Your task to perform on an android device: Open Google Maps Image 0: 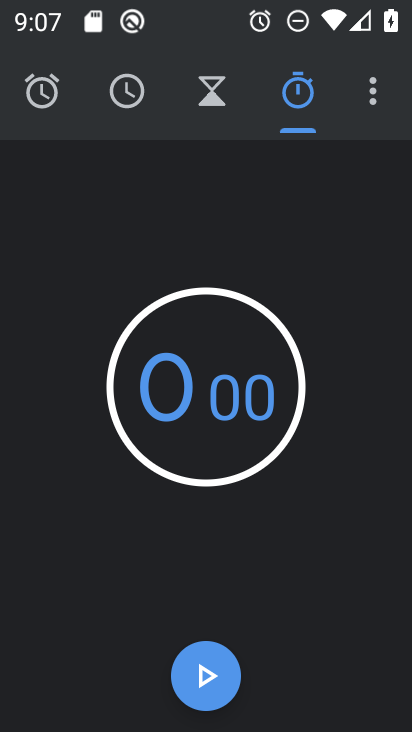
Step 0: press home button
Your task to perform on an android device: Open Google Maps Image 1: 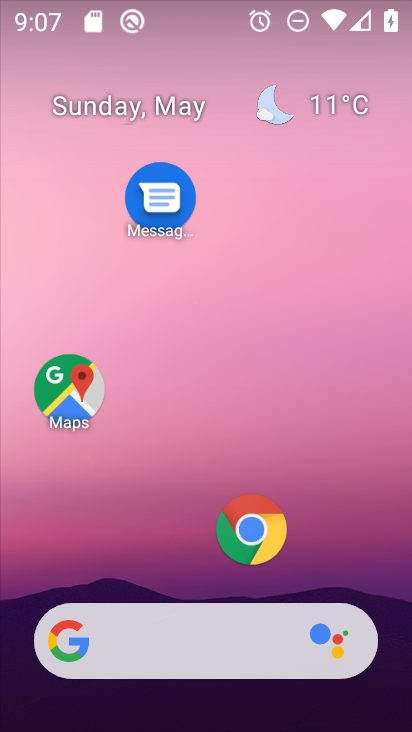
Step 1: click (69, 386)
Your task to perform on an android device: Open Google Maps Image 2: 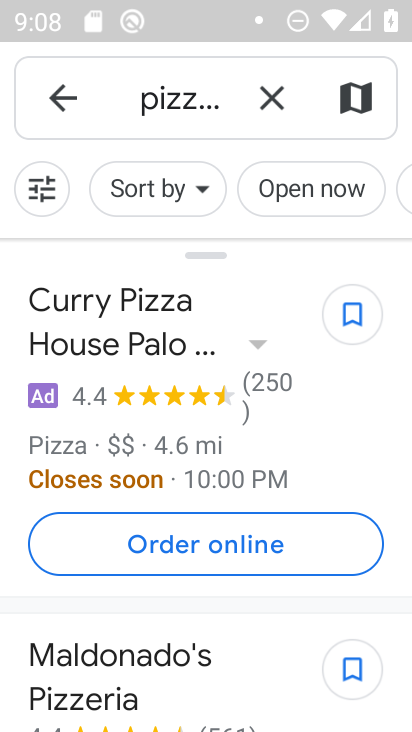
Step 2: click (272, 100)
Your task to perform on an android device: Open Google Maps Image 3: 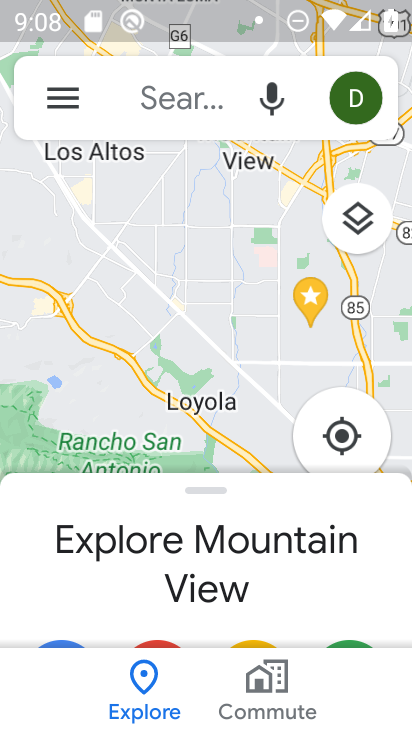
Step 3: task complete